Your task to perform on an android device: Open sound settings Image 0: 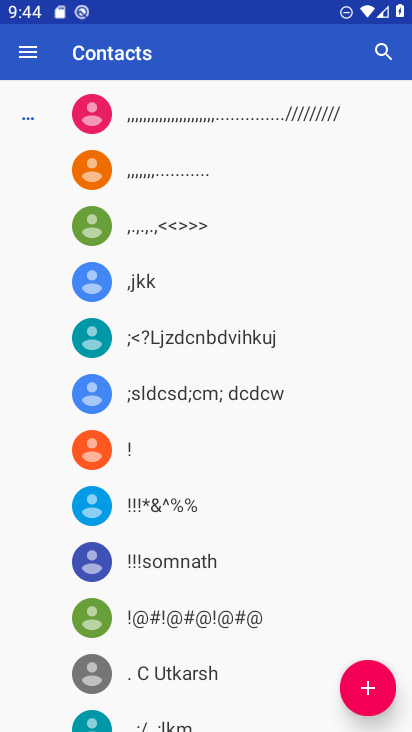
Step 0: press home button
Your task to perform on an android device: Open sound settings Image 1: 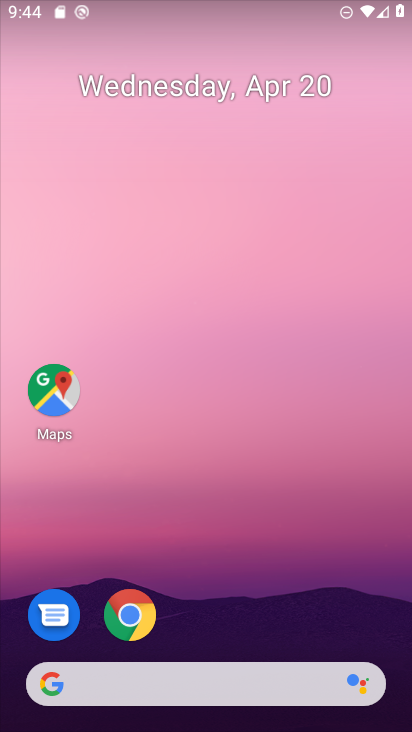
Step 1: drag from (273, 539) to (259, 36)
Your task to perform on an android device: Open sound settings Image 2: 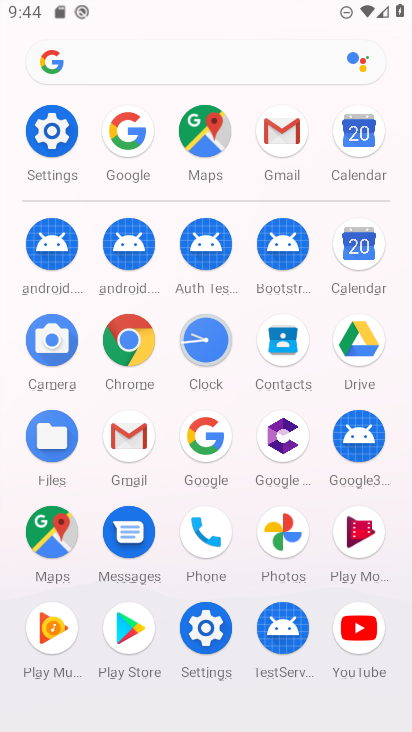
Step 2: click (52, 133)
Your task to perform on an android device: Open sound settings Image 3: 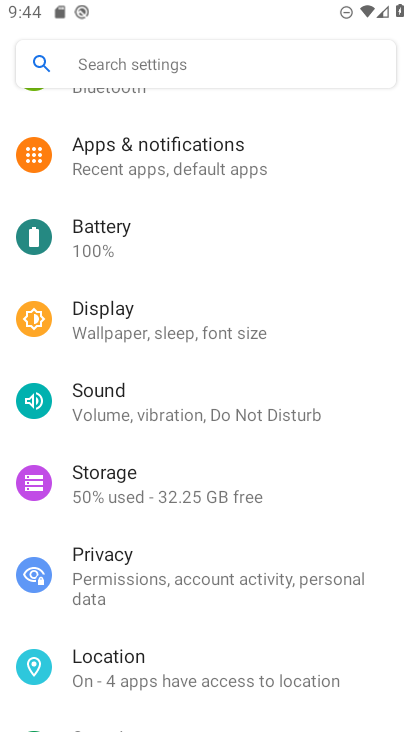
Step 3: click (122, 410)
Your task to perform on an android device: Open sound settings Image 4: 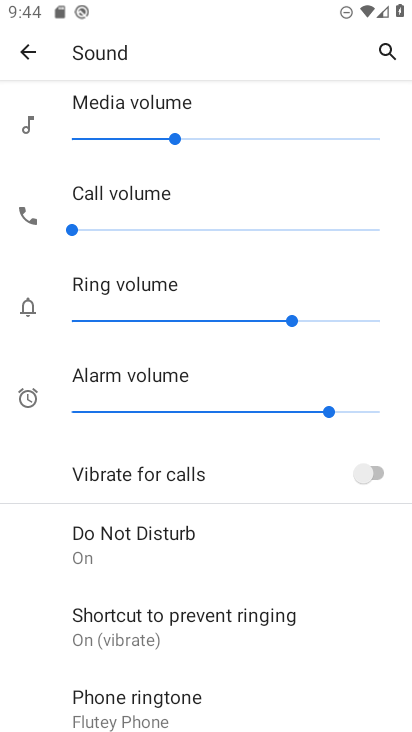
Step 4: task complete